Your task to perform on an android device: check data usage Image 0: 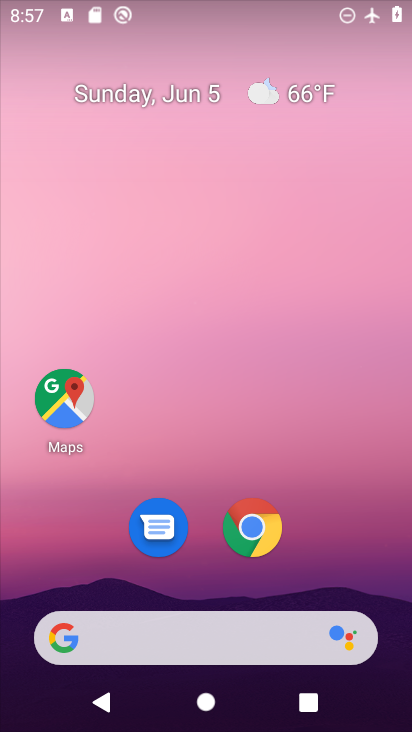
Step 0: drag from (205, 13) to (254, 443)
Your task to perform on an android device: check data usage Image 1: 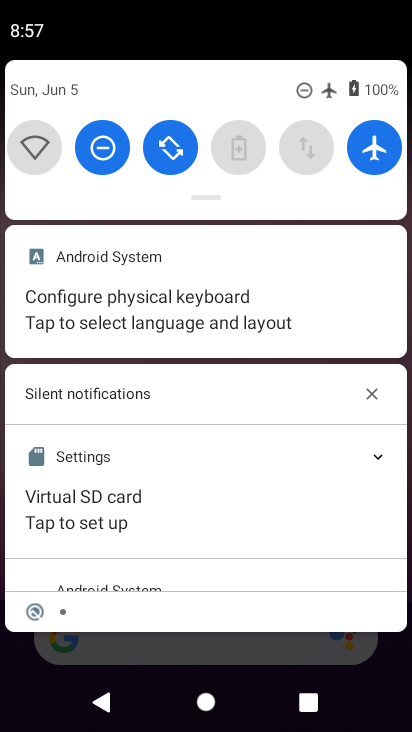
Step 1: click (302, 149)
Your task to perform on an android device: check data usage Image 2: 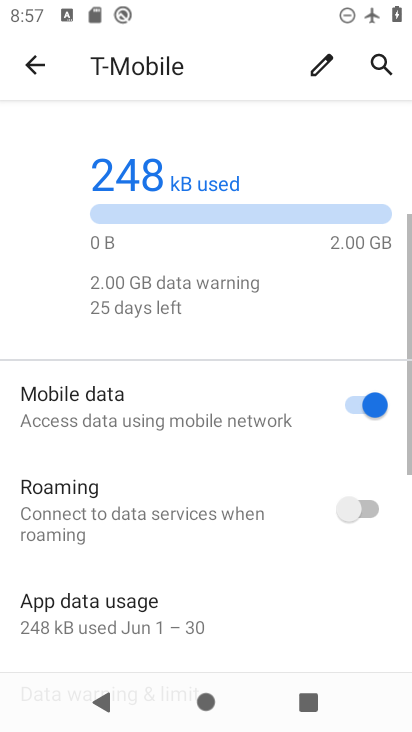
Step 2: task complete